Your task to perform on an android device: turn off airplane mode Image 0: 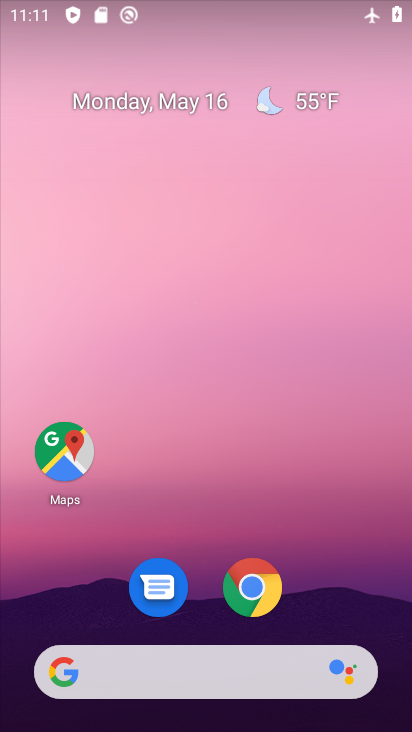
Step 0: drag from (198, 605) to (223, 419)
Your task to perform on an android device: turn off airplane mode Image 1: 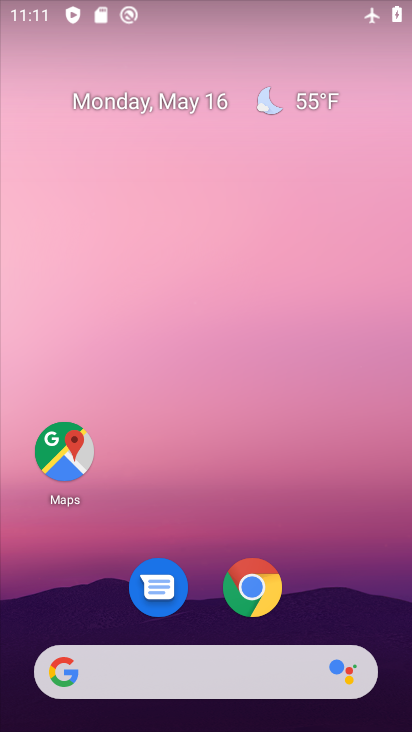
Step 1: drag from (199, 639) to (217, 65)
Your task to perform on an android device: turn off airplane mode Image 2: 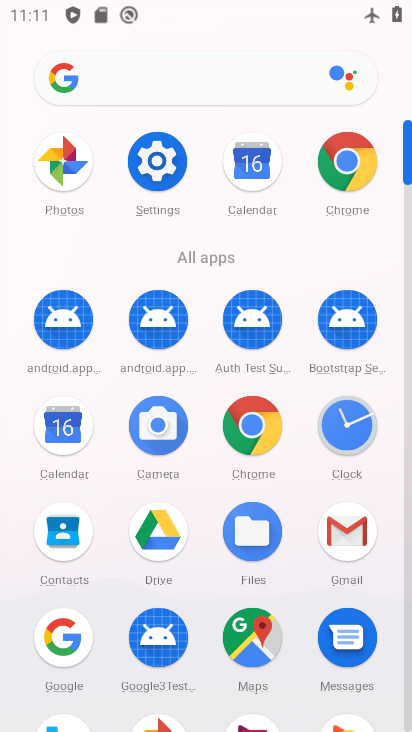
Step 2: click (163, 174)
Your task to perform on an android device: turn off airplane mode Image 3: 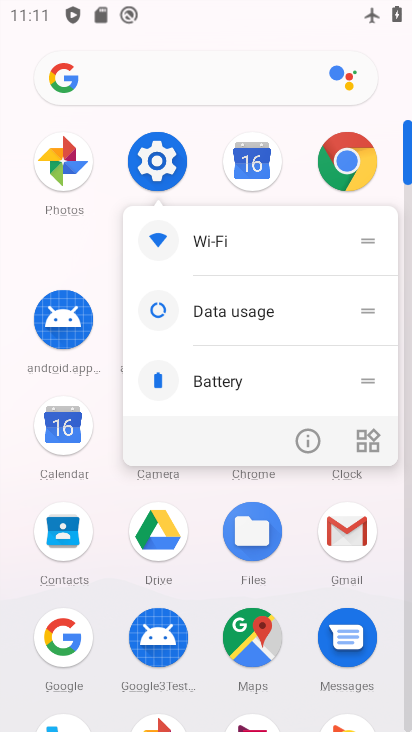
Step 3: click (312, 437)
Your task to perform on an android device: turn off airplane mode Image 4: 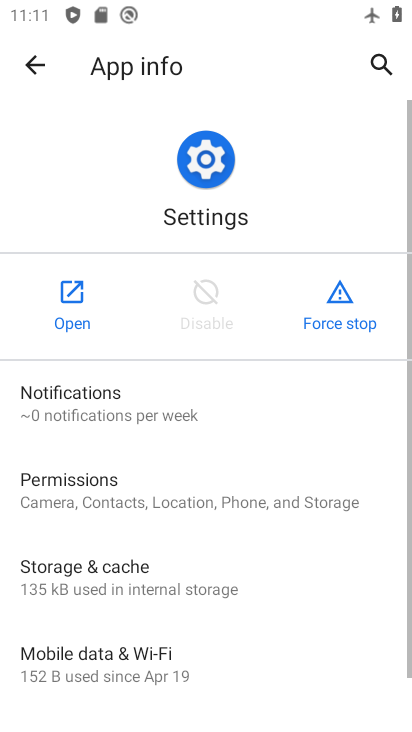
Step 4: click (94, 304)
Your task to perform on an android device: turn off airplane mode Image 5: 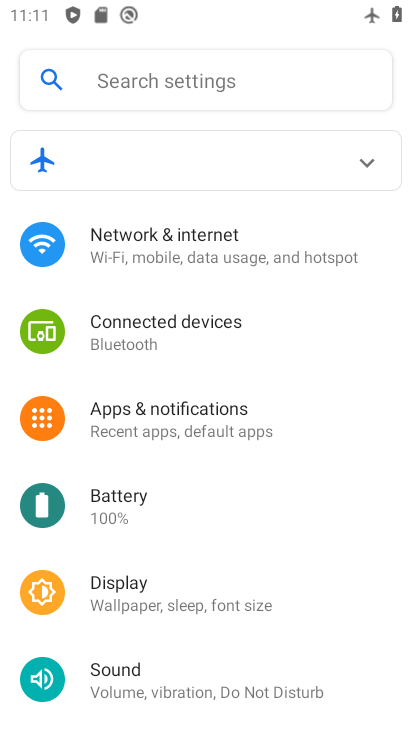
Step 5: click (213, 247)
Your task to perform on an android device: turn off airplane mode Image 6: 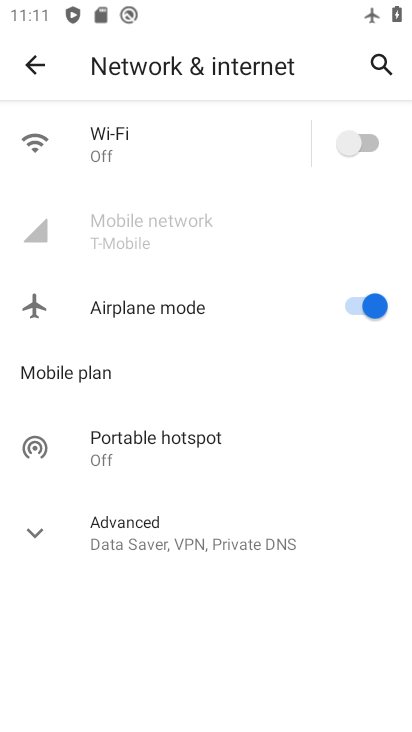
Step 6: click (326, 304)
Your task to perform on an android device: turn off airplane mode Image 7: 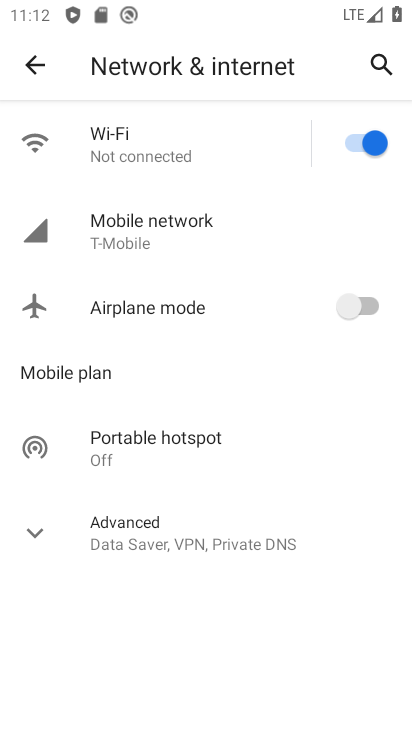
Step 7: task complete